Your task to perform on an android device: What's the weather like in Hong Kong? Image 0: 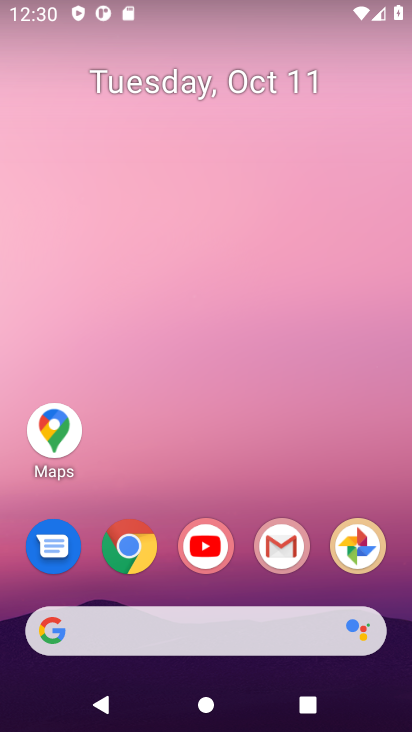
Step 0: click (128, 546)
Your task to perform on an android device: What's the weather like in Hong Kong? Image 1: 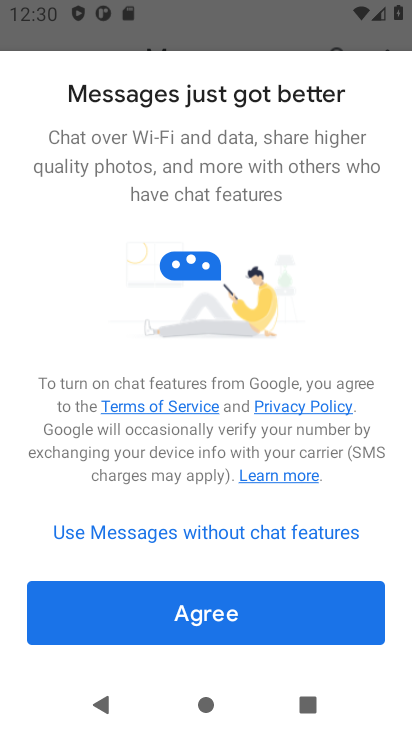
Step 1: press home button
Your task to perform on an android device: What's the weather like in Hong Kong? Image 2: 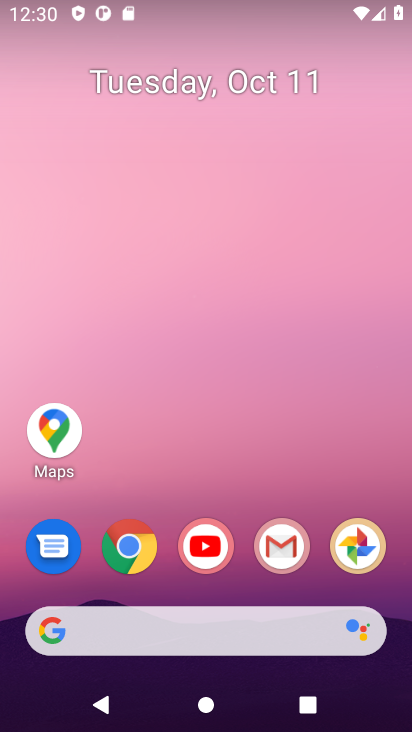
Step 2: click (133, 554)
Your task to perform on an android device: What's the weather like in Hong Kong? Image 3: 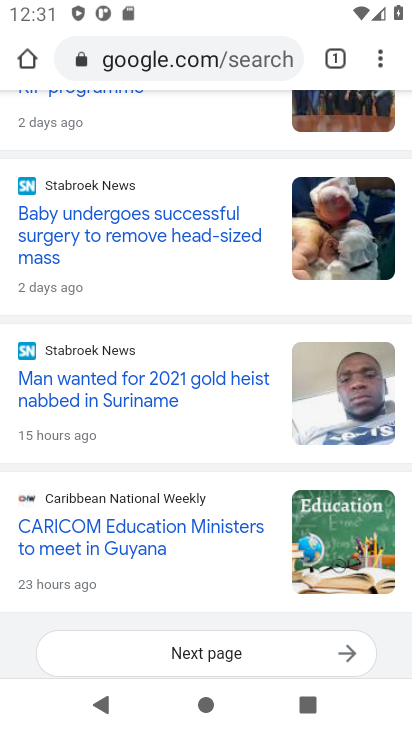
Step 3: click (218, 63)
Your task to perform on an android device: What's the weather like in Hong Kong? Image 4: 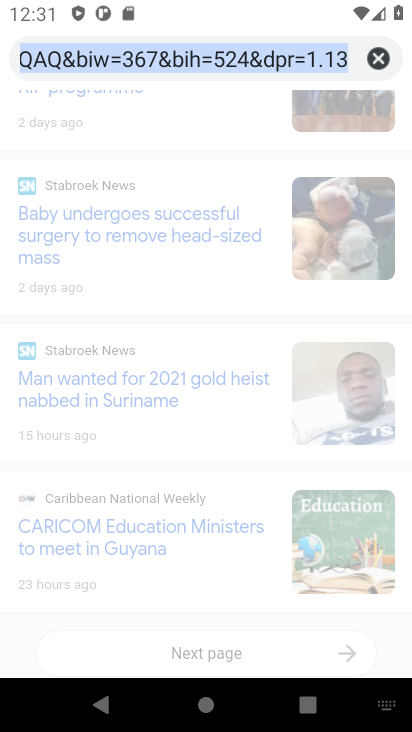
Step 4: type "weather in Hong Kong"
Your task to perform on an android device: What's the weather like in Hong Kong? Image 5: 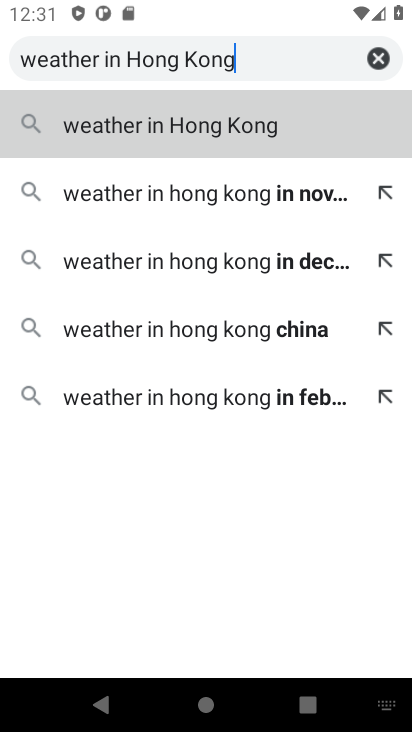
Step 5: type ""
Your task to perform on an android device: What's the weather like in Hong Kong? Image 6: 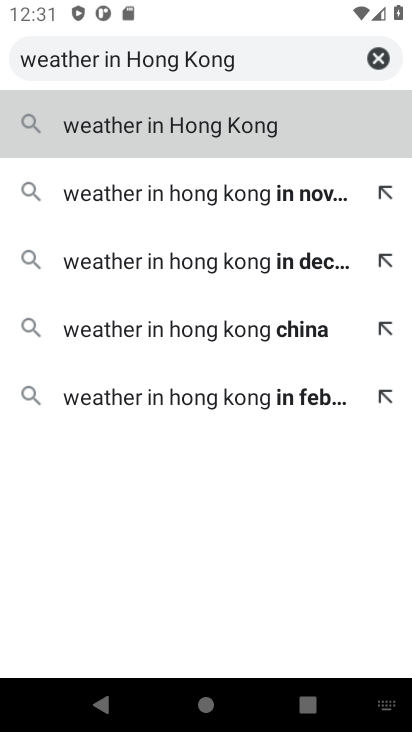
Step 6: press enter
Your task to perform on an android device: What's the weather like in Hong Kong? Image 7: 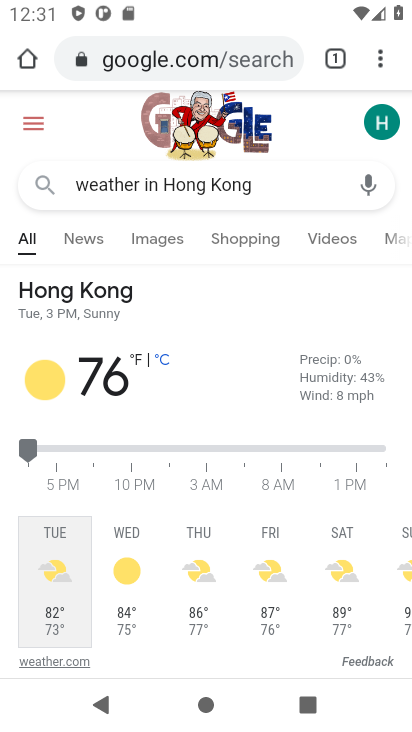
Step 7: task complete